Your task to perform on an android device: Go to Reddit.com Image 0: 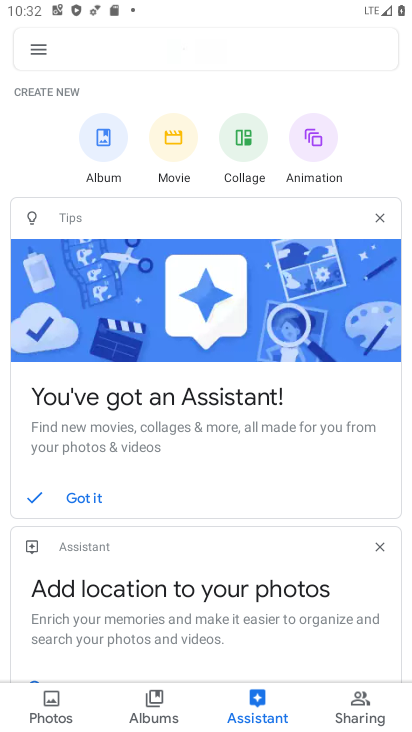
Step 0: press home button
Your task to perform on an android device: Go to Reddit.com Image 1: 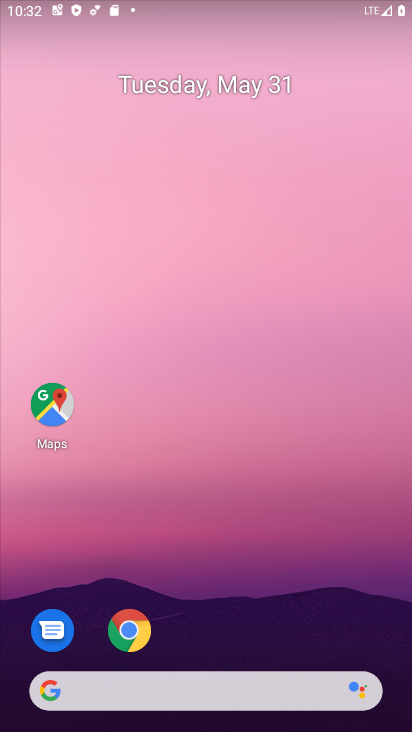
Step 1: drag from (209, 645) to (237, 282)
Your task to perform on an android device: Go to Reddit.com Image 2: 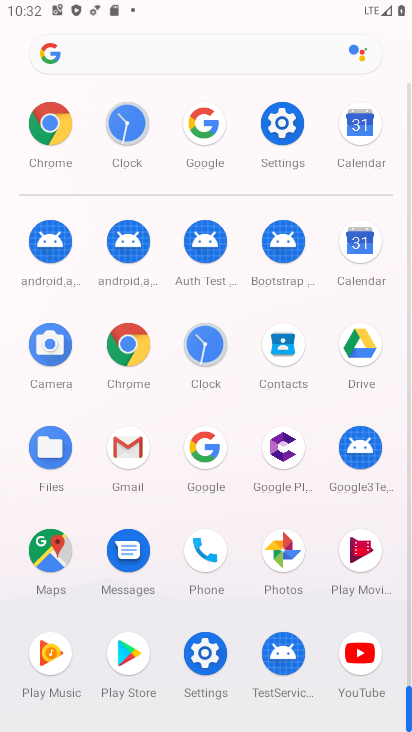
Step 2: click (52, 154)
Your task to perform on an android device: Go to Reddit.com Image 3: 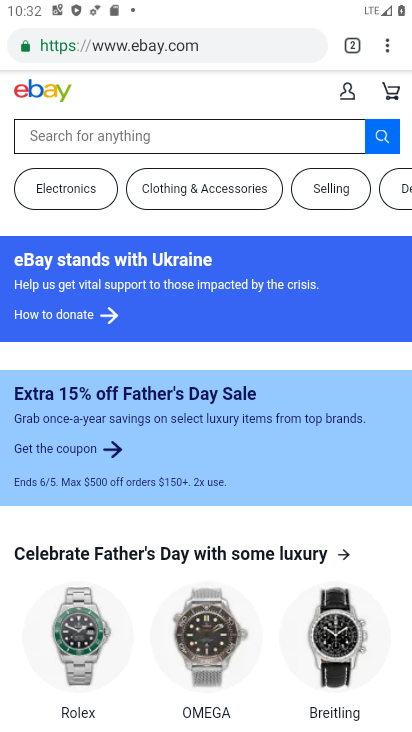
Step 3: click (147, 46)
Your task to perform on an android device: Go to Reddit.com Image 4: 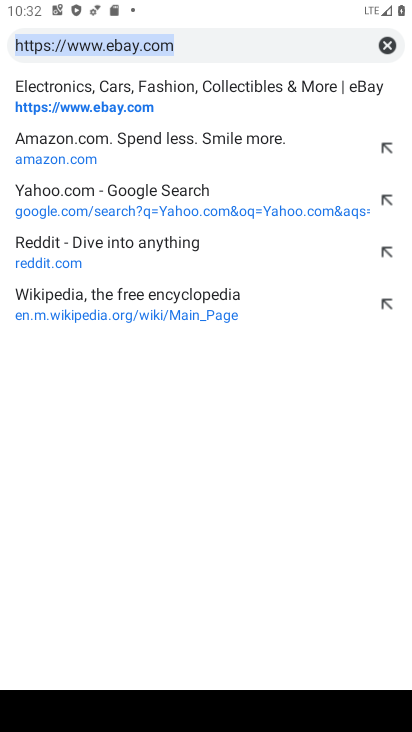
Step 4: click (134, 260)
Your task to perform on an android device: Go to Reddit.com Image 5: 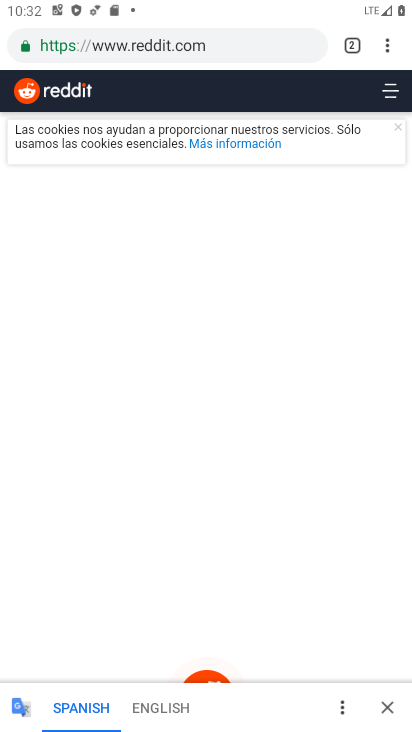
Step 5: task complete